Your task to perform on an android device: turn on data saver in the chrome app Image 0: 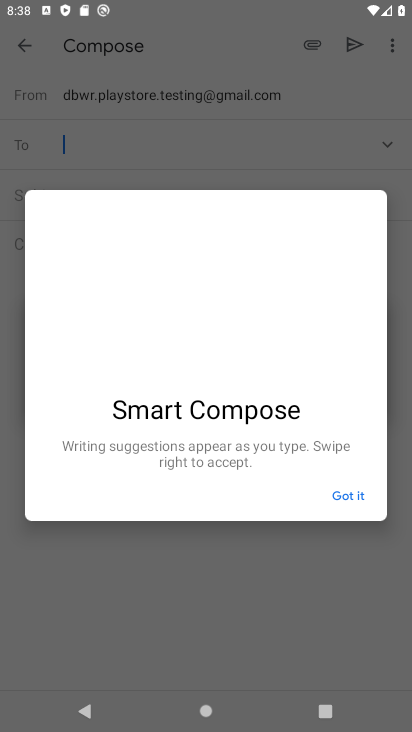
Step 0: press home button
Your task to perform on an android device: turn on data saver in the chrome app Image 1: 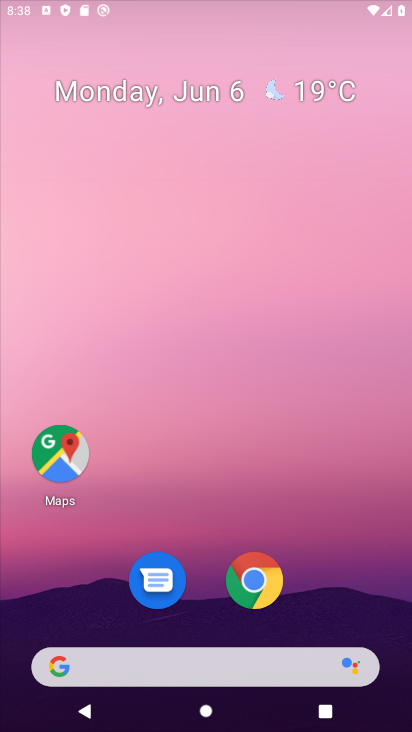
Step 1: drag from (292, 677) to (324, 3)
Your task to perform on an android device: turn on data saver in the chrome app Image 2: 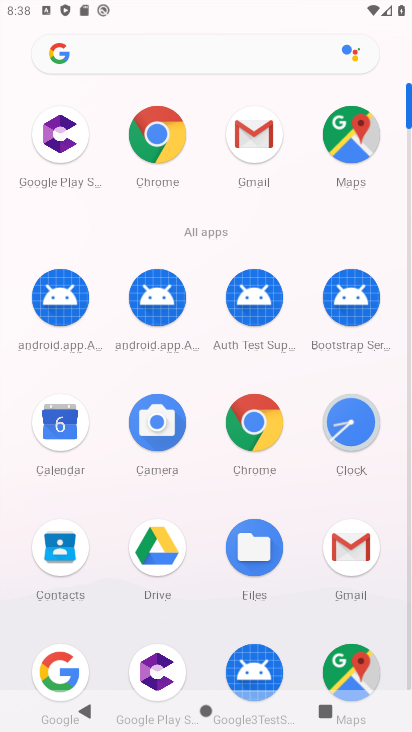
Step 2: click (246, 405)
Your task to perform on an android device: turn on data saver in the chrome app Image 3: 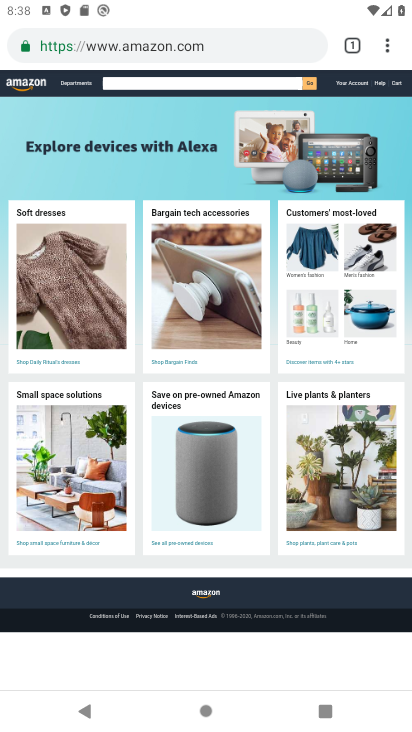
Step 3: drag from (385, 46) to (225, 562)
Your task to perform on an android device: turn on data saver in the chrome app Image 4: 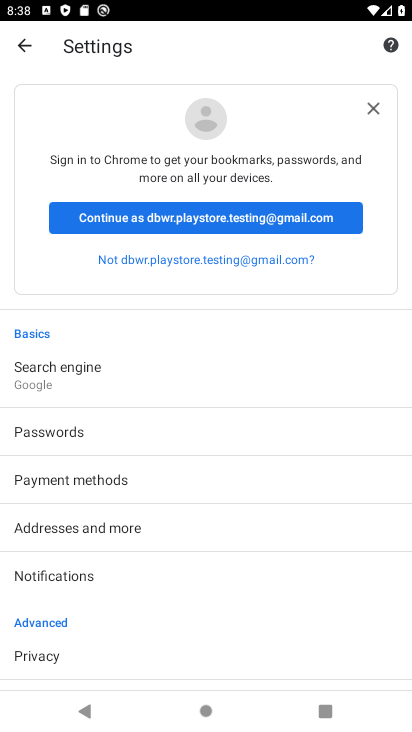
Step 4: drag from (184, 620) to (232, 158)
Your task to perform on an android device: turn on data saver in the chrome app Image 5: 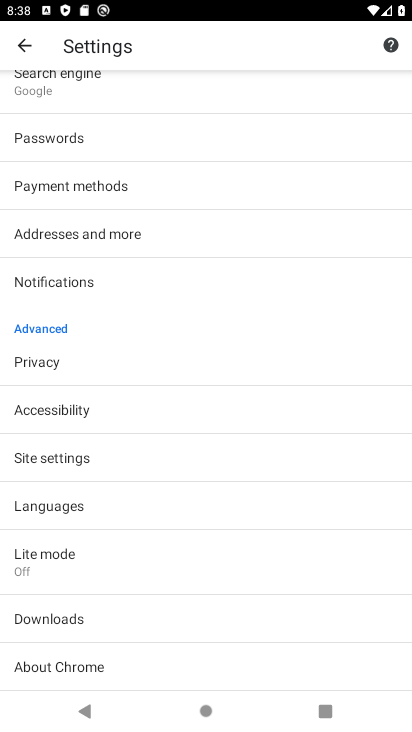
Step 5: click (80, 572)
Your task to perform on an android device: turn on data saver in the chrome app Image 6: 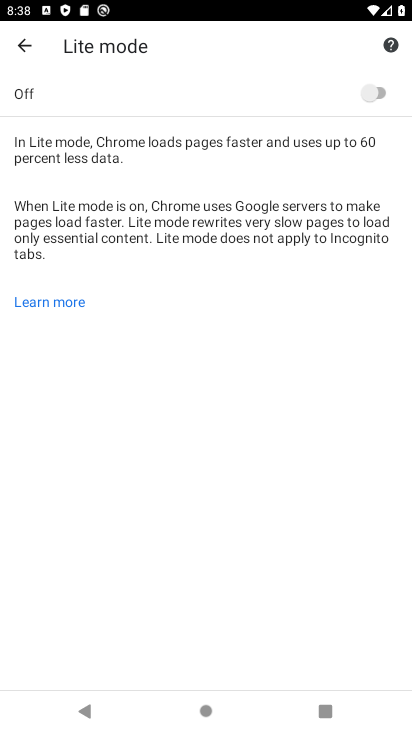
Step 6: click (380, 96)
Your task to perform on an android device: turn on data saver in the chrome app Image 7: 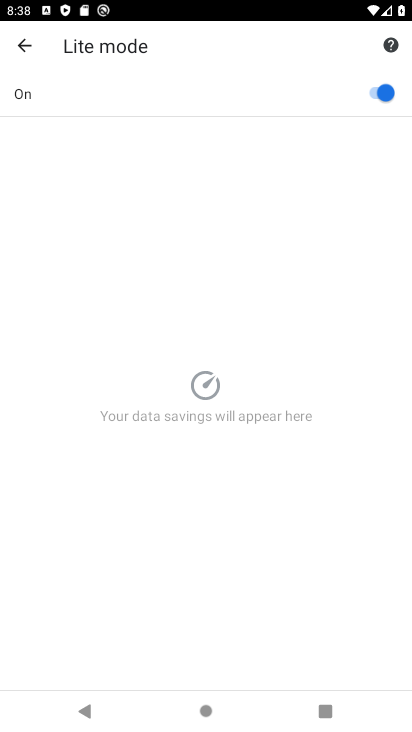
Step 7: task complete